Your task to perform on an android device: Go to display settings Image 0: 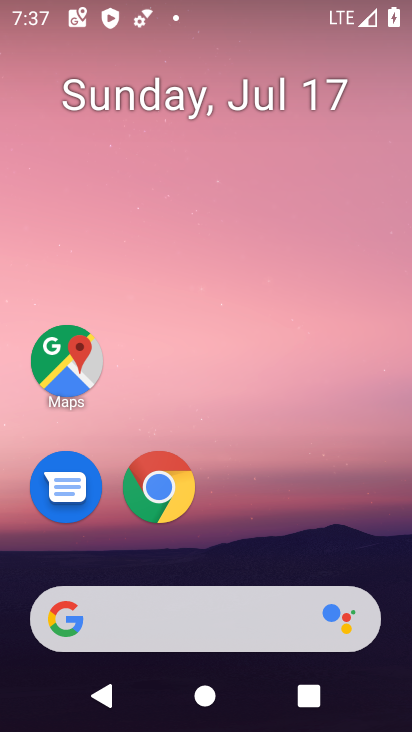
Step 0: drag from (366, 542) to (386, 87)
Your task to perform on an android device: Go to display settings Image 1: 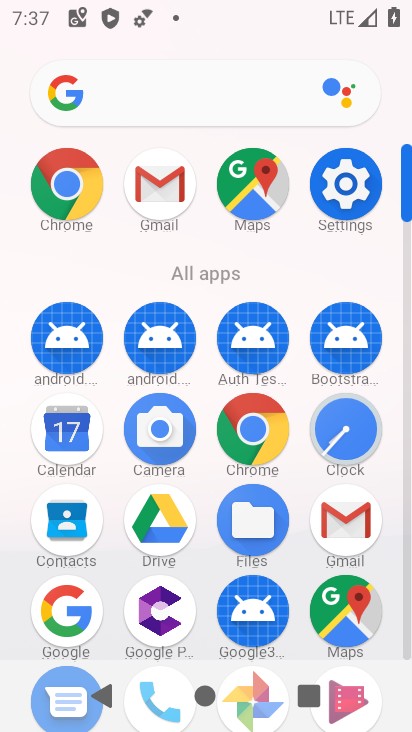
Step 1: click (344, 193)
Your task to perform on an android device: Go to display settings Image 2: 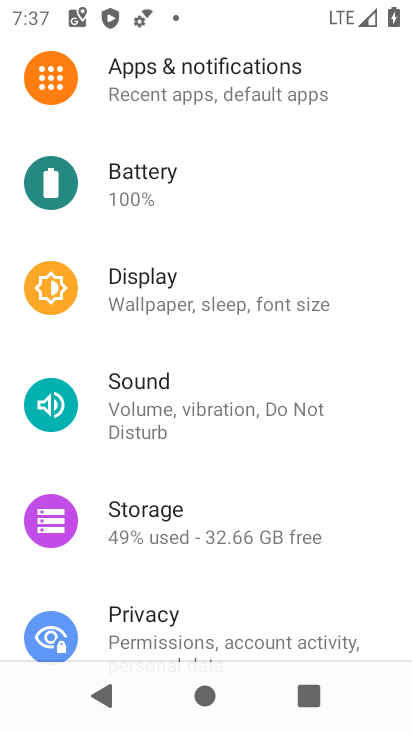
Step 2: drag from (344, 193) to (345, 265)
Your task to perform on an android device: Go to display settings Image 3: 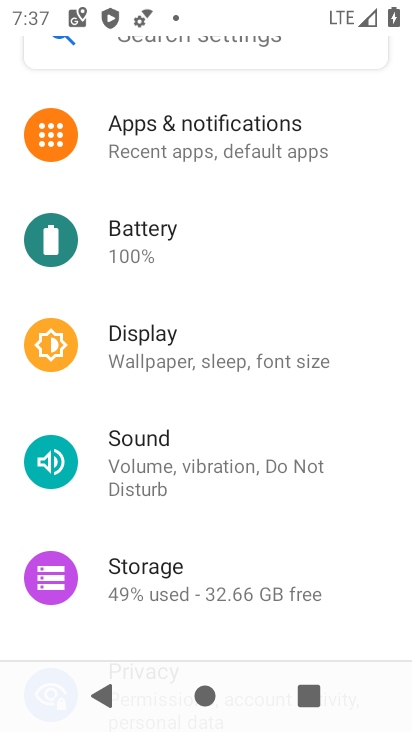
Step 3: drag from (363, 205) to (362, 303)
Your task to perform on an android device: Go to display settings Image 4: 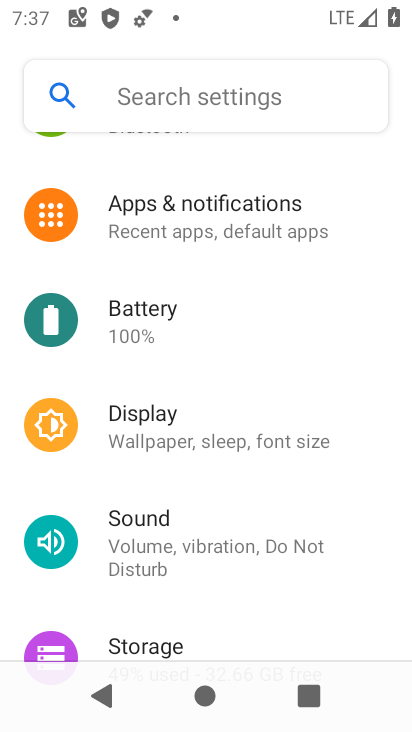
Step 4: drag from (377, 235) to (363, 348)
Your task to perform on an android device: Go to display settings Image 5: 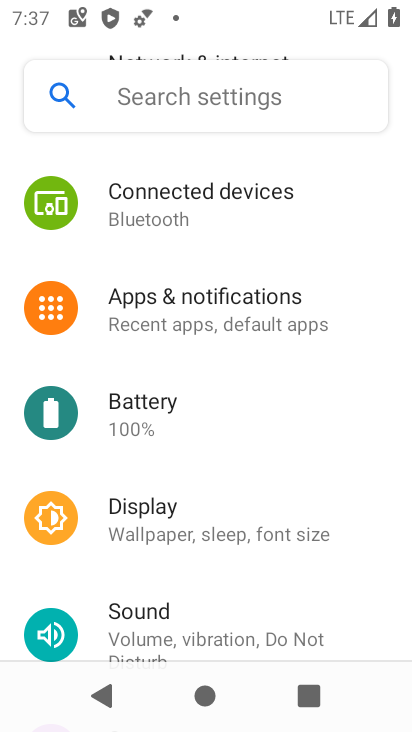
Step 5: drag from (374, 249) to (366, 331)
Your task to perform on an android device: Go to display settings Image 6: 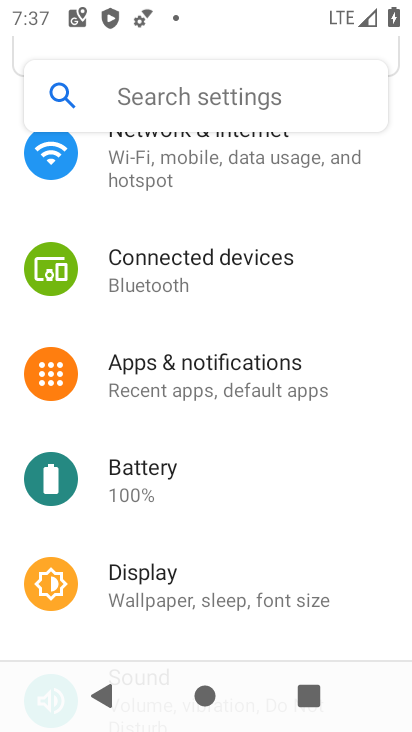
Step 6: drag from (365, 258) to (364, 353)
Your task to perform on an android device: Go to display settings Image 7: 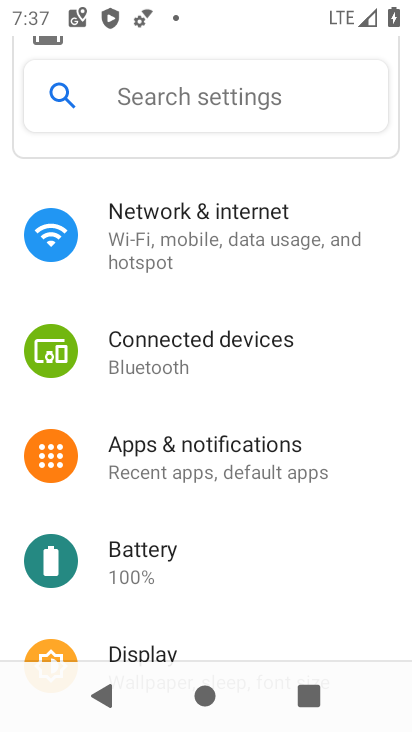
Step 7: drag from (368, 282) to (371, 371)
Your task to perform on an android device: Go to display settings Image 8: 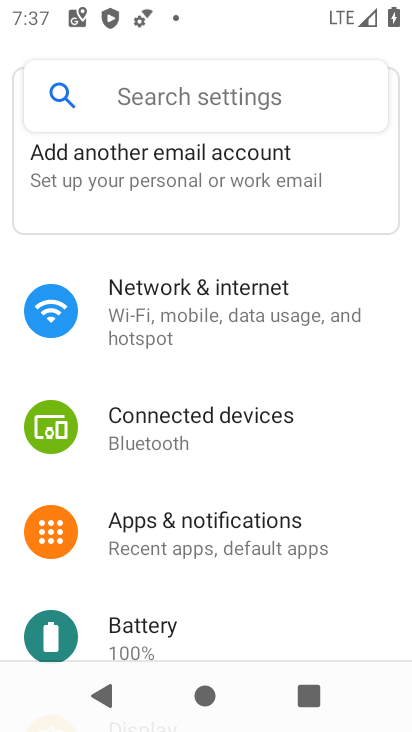
Step 8: drag from (370, 278) to (370, 382)
Your task to perform on an android device: Go to display settings Image 9: 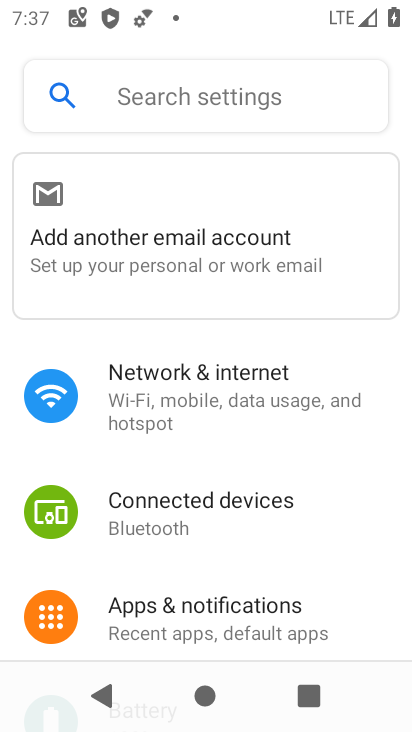
Step 9: drag from (383, 282) to (374, 457)
Your task to perform on an android device: Go to display settings Image 10: 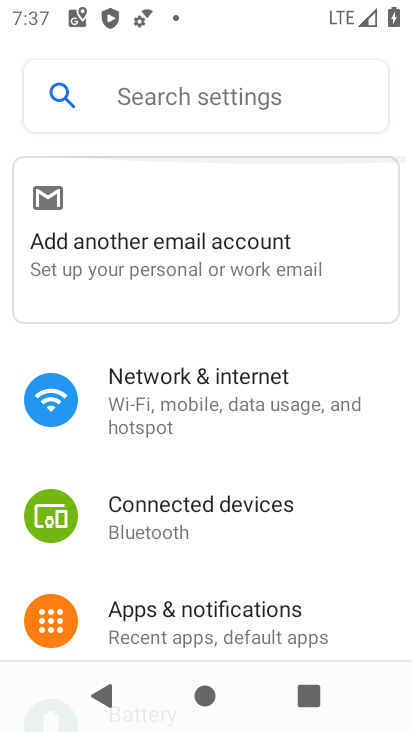
Step 10: drag from (369, 545) to (371, 472)
Your task to perform on an android device: Go to display settings Image 11: 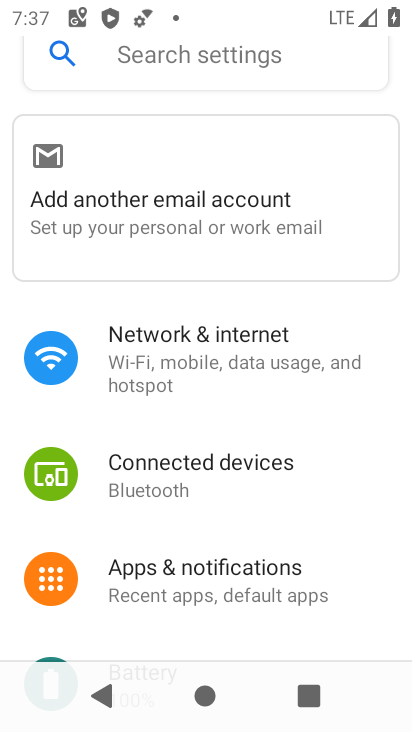
Step 11: drag from (350, 542) to (349, 441)
Your task to perform on an android device: Go to display settings Image 12: 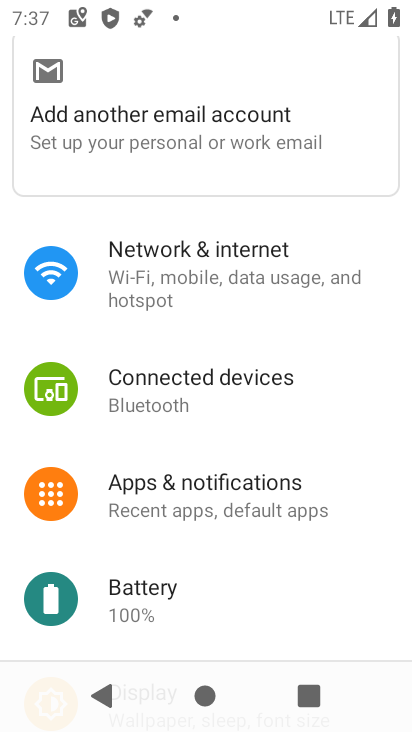
Step 12: drag from (340, 515) to (349, 400)
Your task to perform on an android device: Go to display settings Image 13: 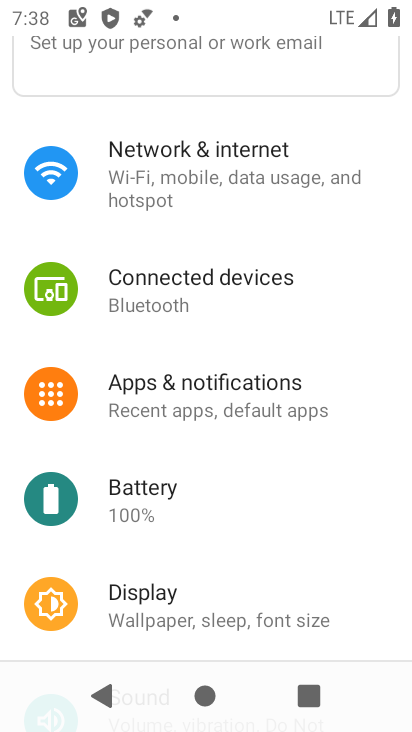
Step 13: drag from (352, 466) to (361, 366)
Your task to perform on an android device: Go to display settings Image 14: 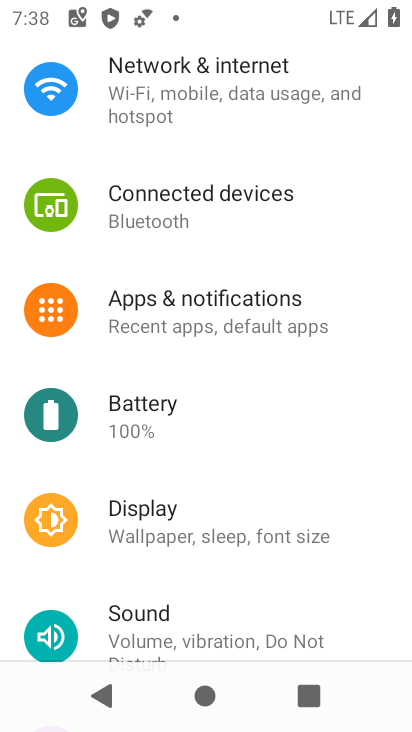
Step 14: drag from (374, 476) to (374, 373)
Your task to perform on an android device: Go to display settings Image 15: 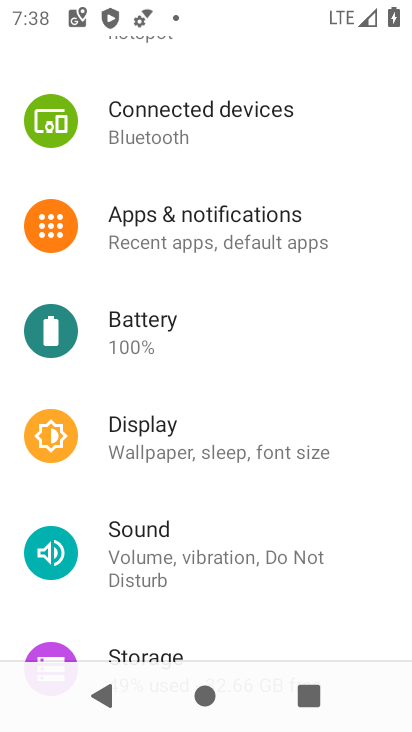
Step 15: drag from (364, 482) to (364, 392)
Your task to perform on an android device: Go to display settings Image 16: 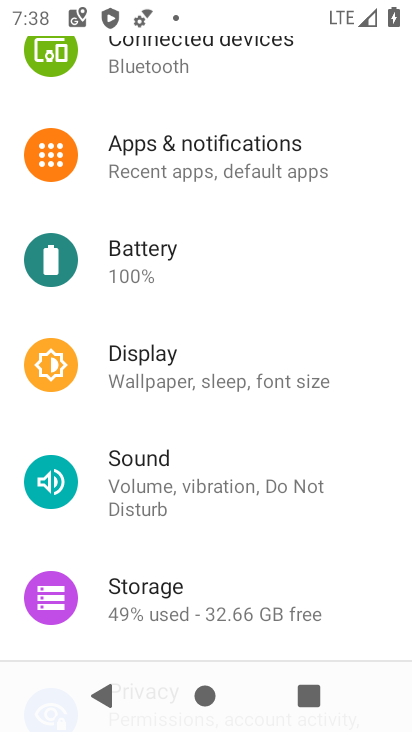
Step 16: click (348, 390)
Your task to perform on an android device: Go to display settings Image 17: 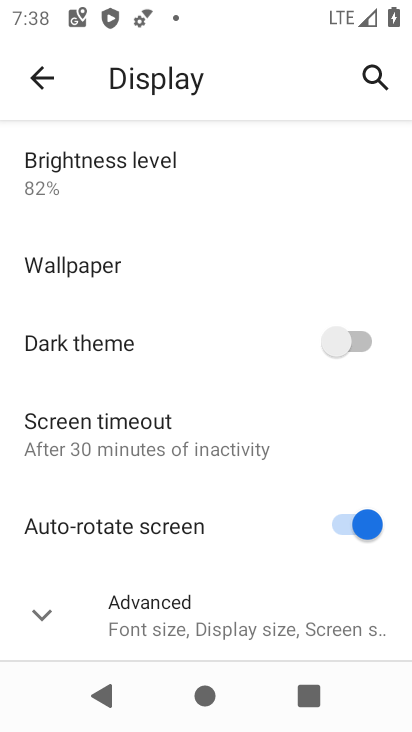
Step 17: click (268, 587)
Your task to perform on an android device: Go to display settings Image 18: 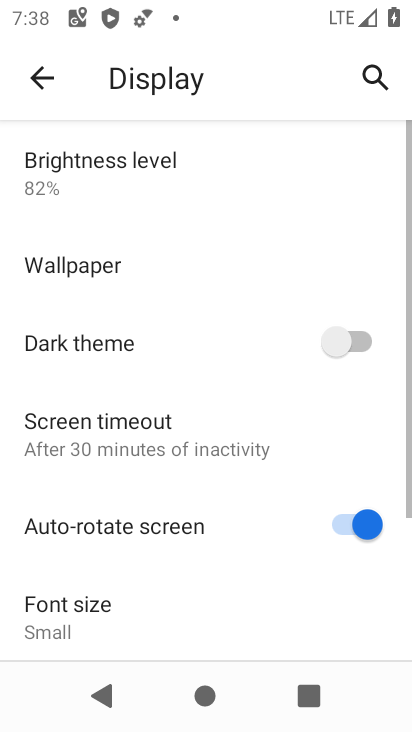
Step 18: task complete